Your task to perform on an android device: check google app version Image 0: 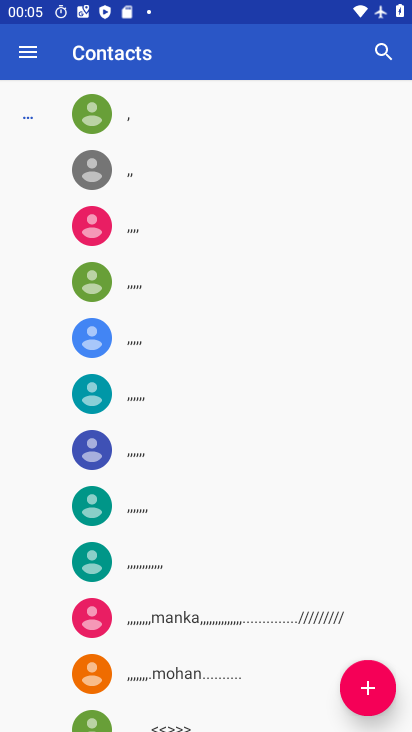
Step 0: press home button
Your task to perform on an android device: check google app version Image 1: 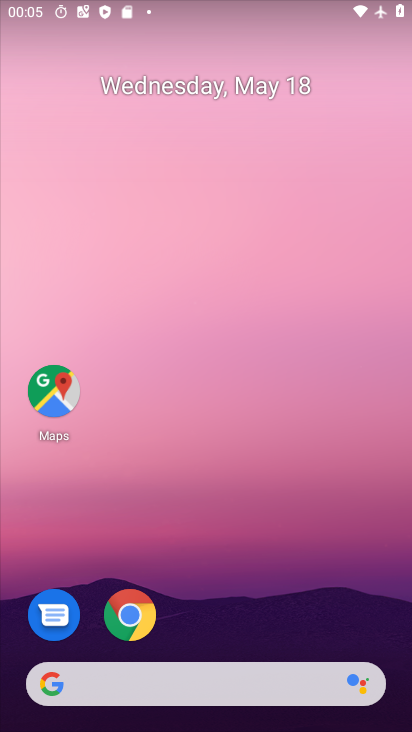
Step 1: drag from (213, 607) to (209, 146)
Your task to perform on an android device: check google app version Image 2: 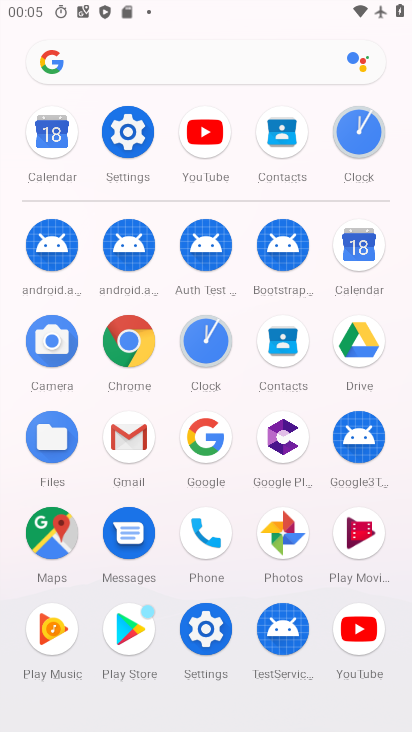
Step 2: click (209, 453)
Your task to perform on an android device: check google app version Image 3: 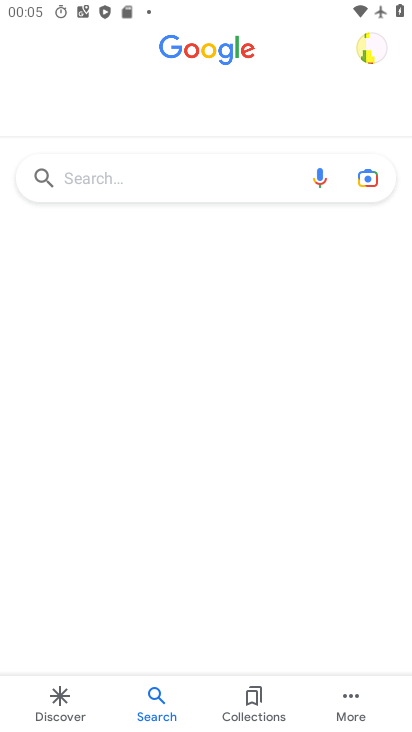
Step 3: click (352, 697)
Your task to perform on an android device: check google app version Image 4: 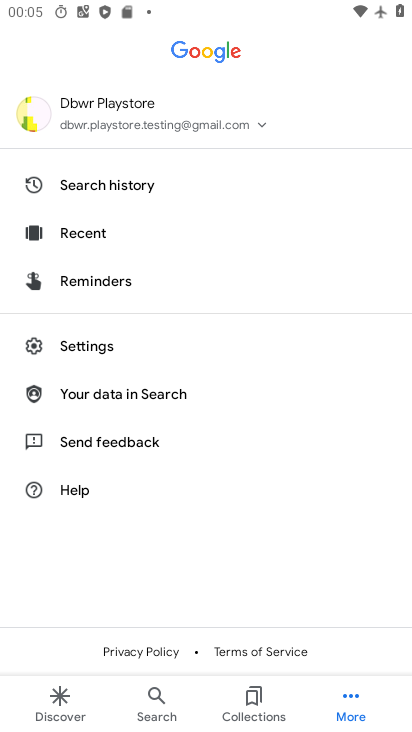
Step 4: click (80, 348)
Your task to perform on an android device: check google app version Image 5: 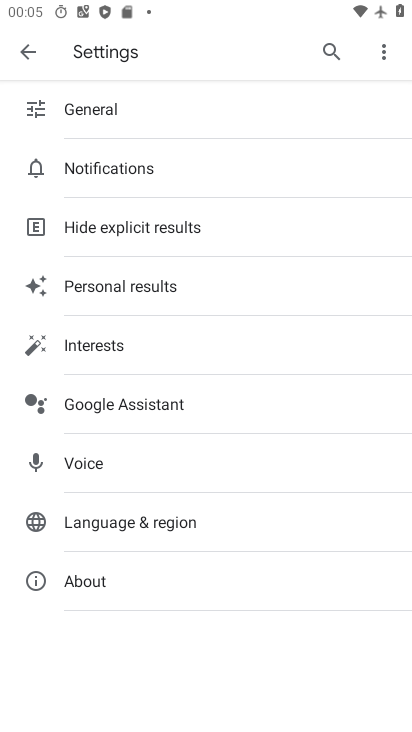
Step 5: click (137, 581)
Your task to perform on an android device: check google app version Image 6: 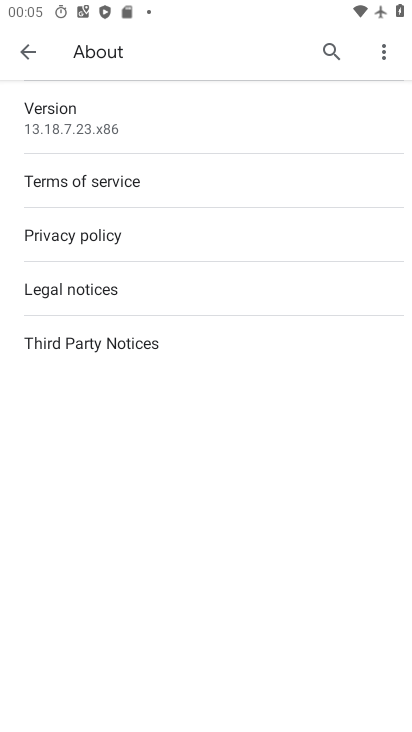
Step 6: click (124, 111)
Your task to perform on an android device: check google app version Image 7: 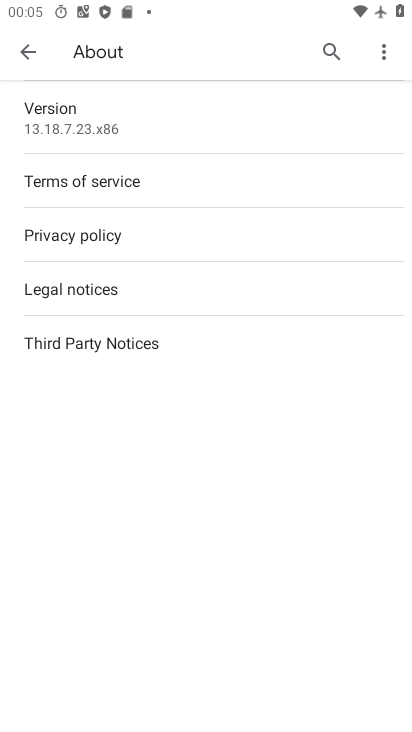
Step 7: click (124, 111)
Your task to perform on an android device: check google app version Image 8: 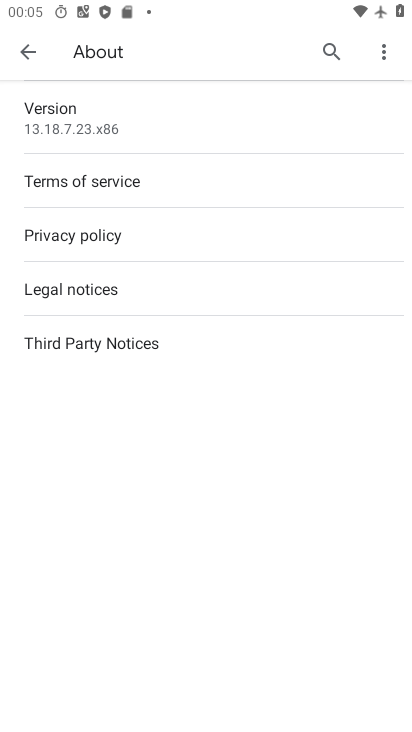
Step 8: click (162, 99)
Your task to perform on an android device: check google app version Image 9: 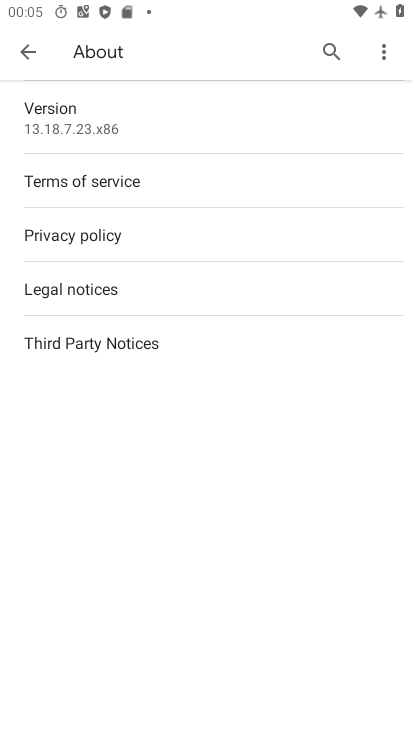
Step 9: task complete